Your task to perform on an android device: set default search engine in the chrome app Image 0: 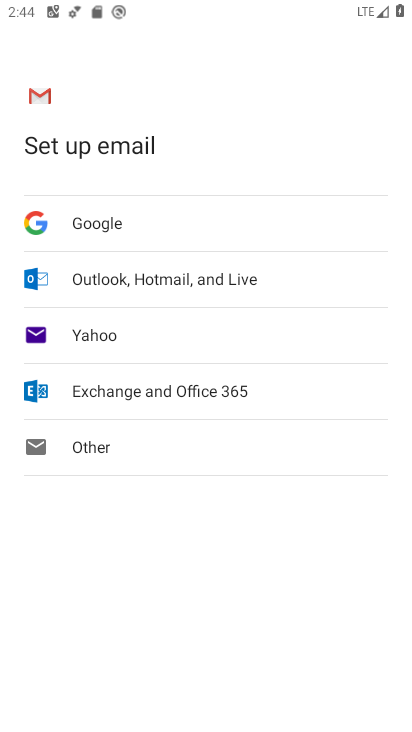
Step 0: press home button
Your task to perform on an android device: set default search engine in the chrome app Image 1: 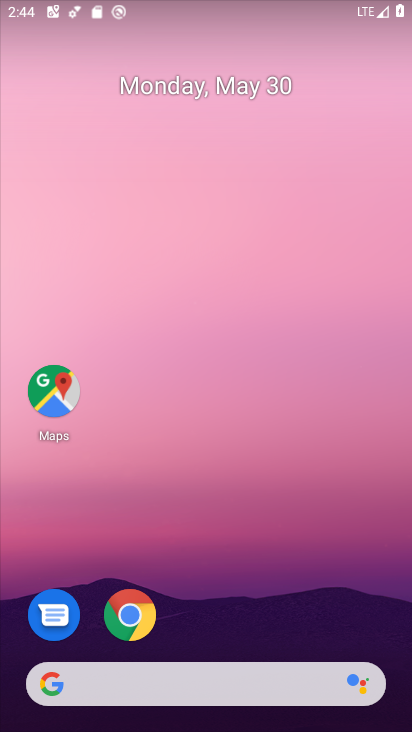
Step 1: click (129, 631)
Your task to perform on an android device: set default search engine in the chrome app Image 2: 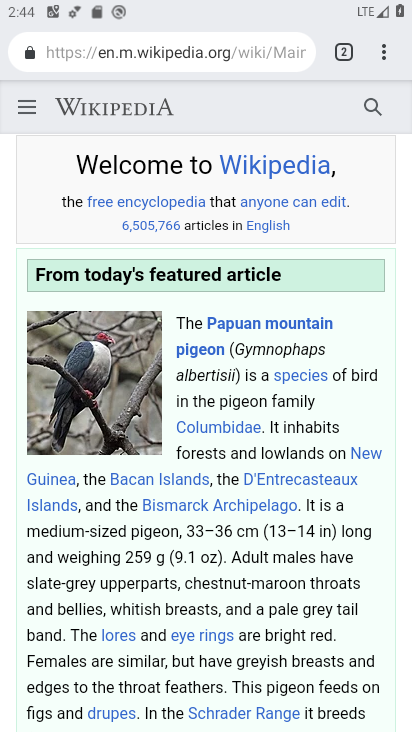
Step 2: click (380, 52)
Your task to perform on an android device: set default search engine in the chrome app Image 3: 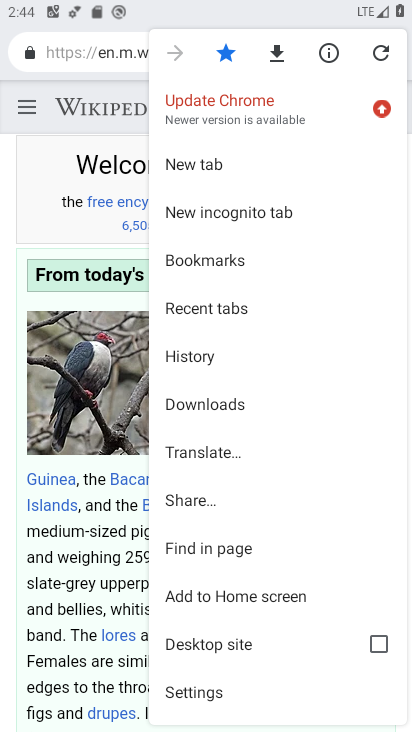
Step 3: click (237, 688)
Your task to perform on an android device: set default search engine in the chrome app Image 4: 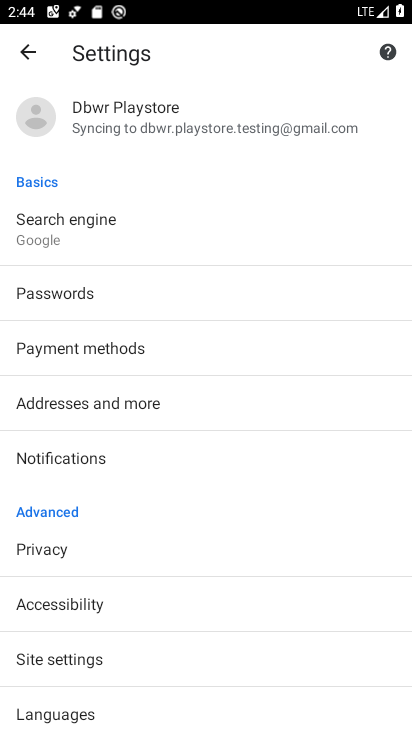
Step 4: click (109, 229)
Your task to perform on an android device: set default search engine in the chrome app Image 5: 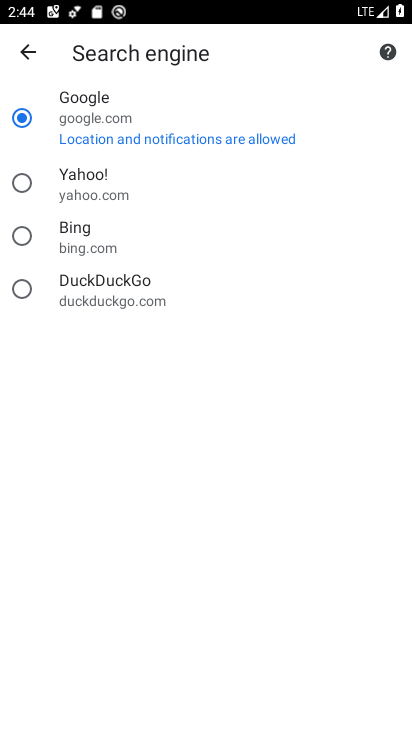
Step 5: task complete